Your task to perform on an android device: Go to Amazon Image 0: 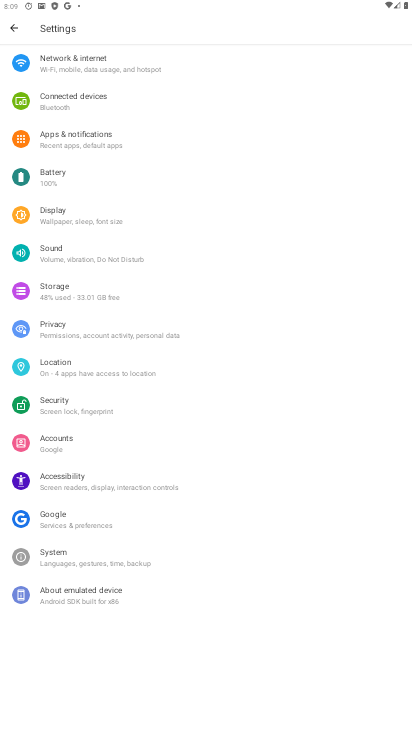
Step 0: press home button
Your task to perform on an android device: Go to Amazon Image 1: 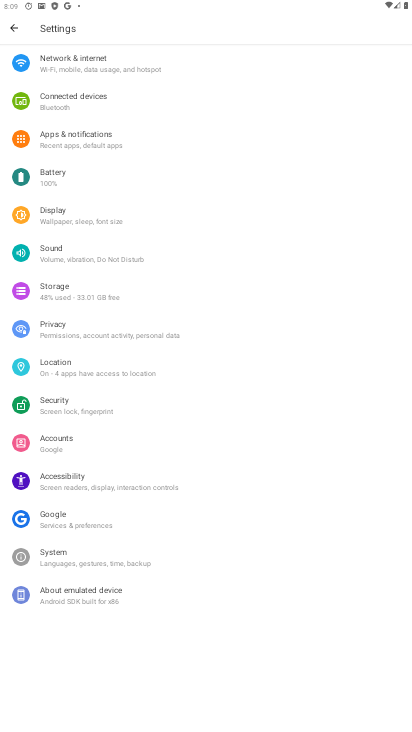
Step 1: press home button
Your task to perform on an android device: Go to Amazon Image 2: 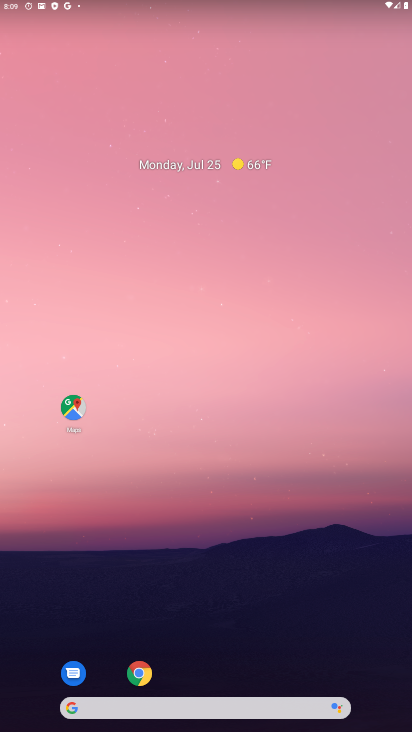
Step 2: drag from (196, 660) to (191, 53)
Your task to perform on an android device: Go to Amazon Image 3: 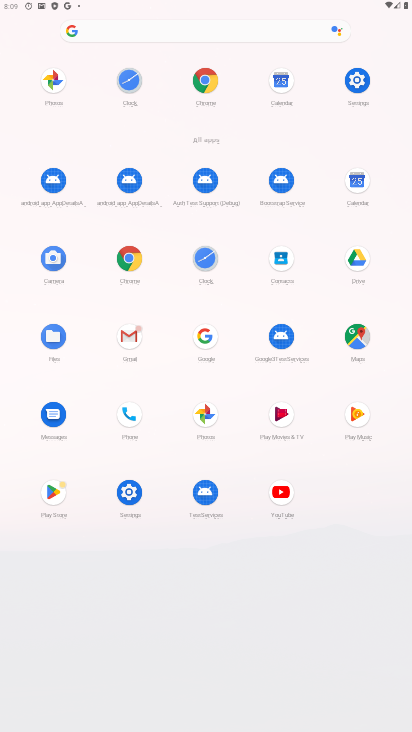
Step 3: click (128, 254)
Your task to perform on an android device: Go to Amazon Image 4: 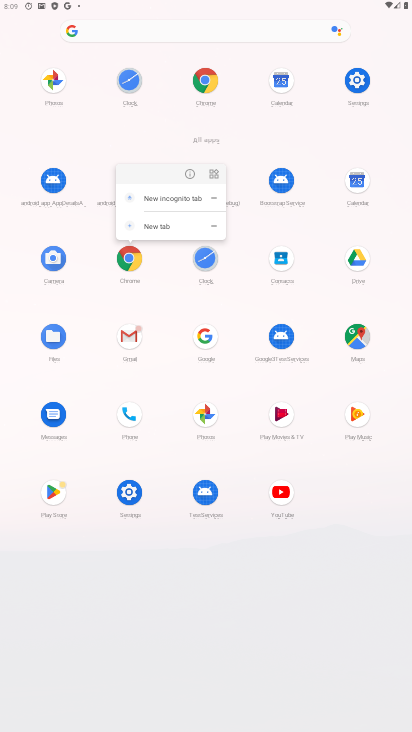
Step 4: click (183, 172)
Your task to perform on an android device: Go to Amazon Image 5: 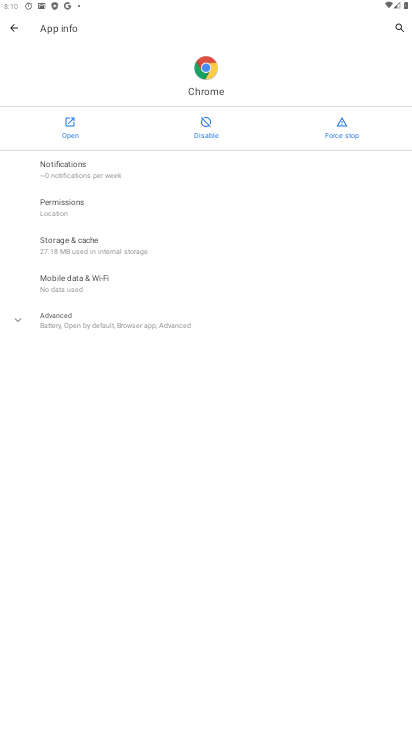
Step 5: click (65, 123)
Your task to perform on an android device: Go to Amazon Image 6: 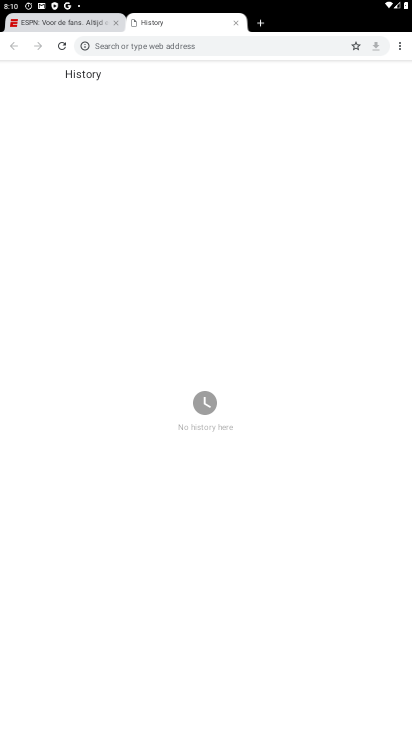
Step 6: click (127, 48)
Your task to perform on an android device: Go to Amazon Image 7: 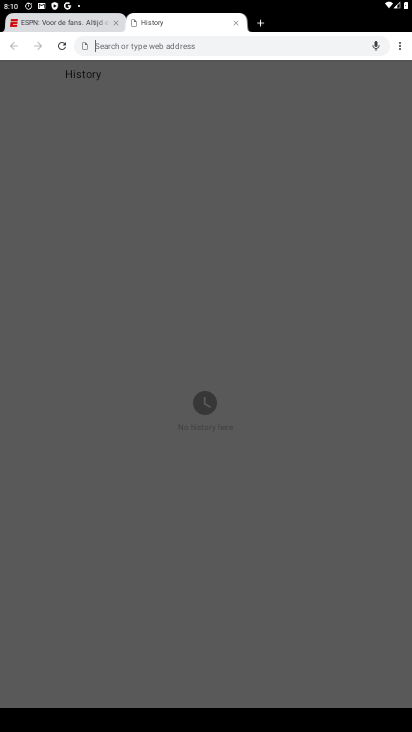
Step 7: type "amazon"
Your task to perform on an android device: Go to Amazon Image 8: 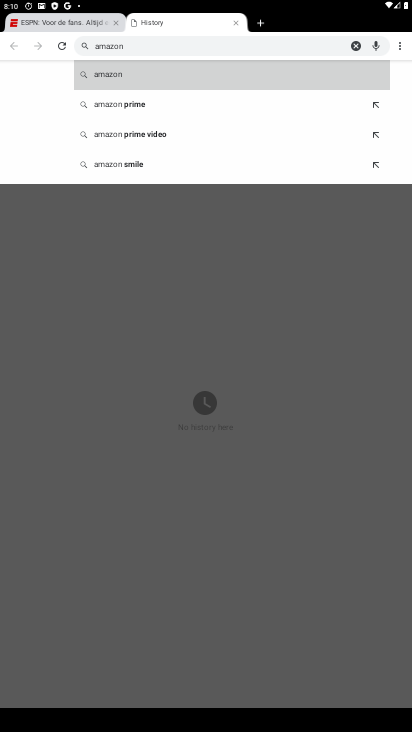
Step 8: click (102, 79)
Your task to perform on an android device: Go to Amazon Image 9: 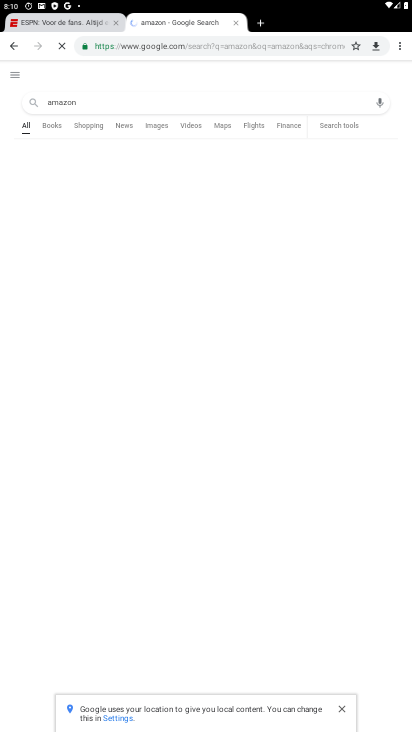
Step 9: drag from (135, 454) to (171, 296)
Your task to perform on an android device: Go to Amazon Image 10: 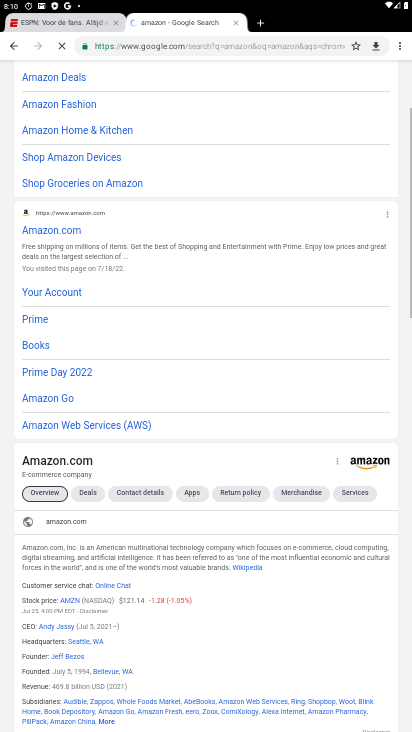
Step 10: drag from (213, 212) to (226, 564)
Your task to perform on an android device: Go to Amazon Image 11: 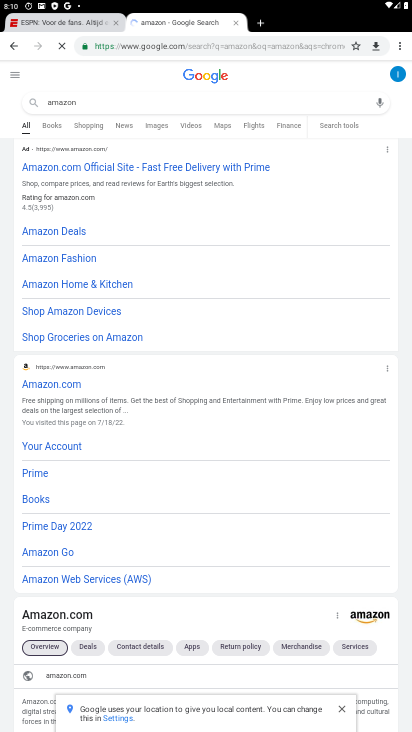
Step 11: click (64, 168)
Your task to perform on an android device: Go to Amazon Image 12: 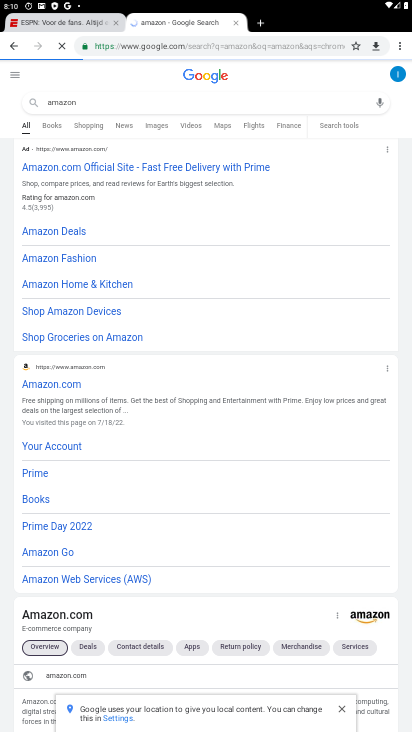
Step 12: task complete